Your task to perform on an android device: What's on my calendar tomorrow? Image 0: 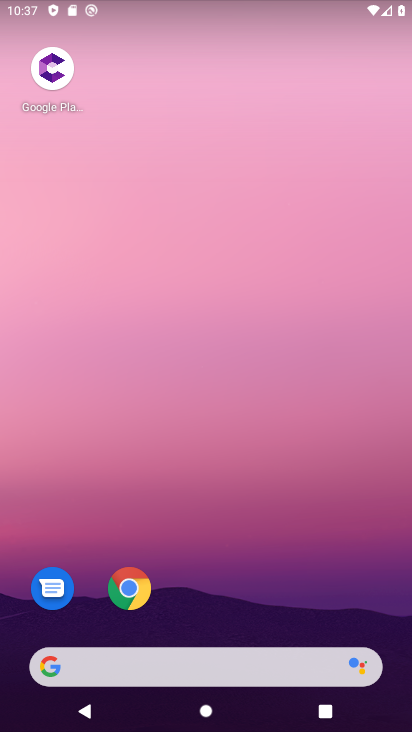
Step 0: drag from (385, 614) to (354, 8)
Your task to perform on an android device: What's on my calendar tomorrow? Image 1: 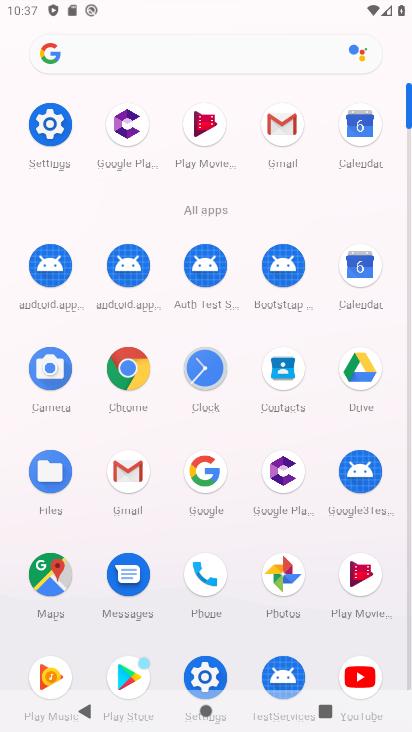
Step 1: click (362, 268)
Your task to perform on an android device: What's on my calendar tomorrow? Image 2: 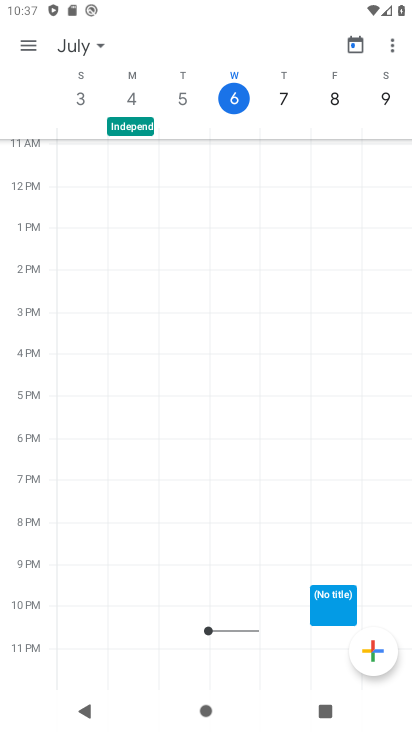
Step 2: click (28, 45)
Your task to perform on an android device: What's on my calendar tomorrow? Image 3: 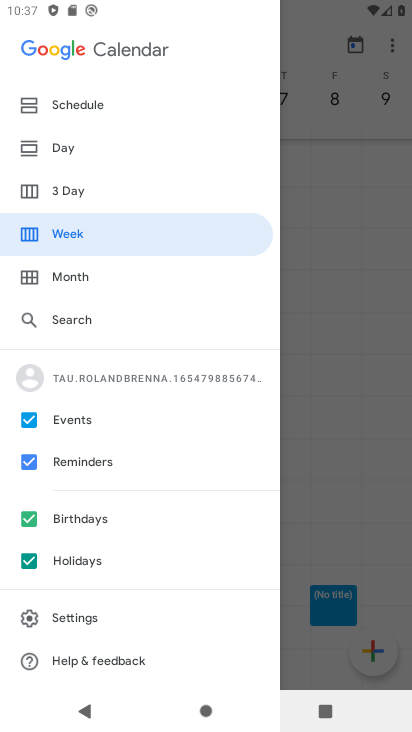
Step 3: click (61, 149)
Your task to perform on an android device: What's on my calendar tomorrow? Image 4: 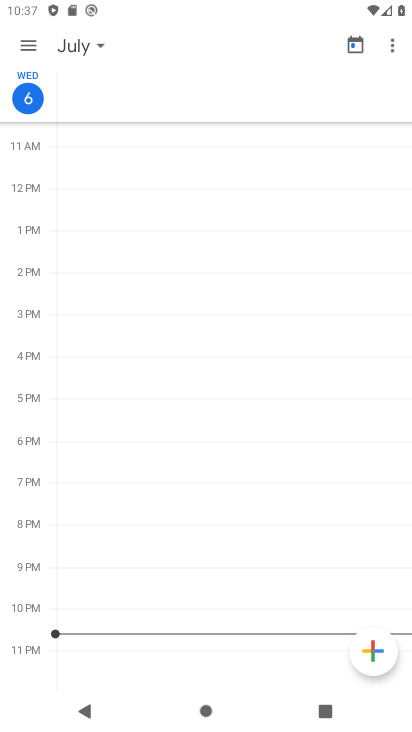
Step 4: click (102, 47)
Your task to perform on an android device: What's on my calendar tomorrow? Image 5: 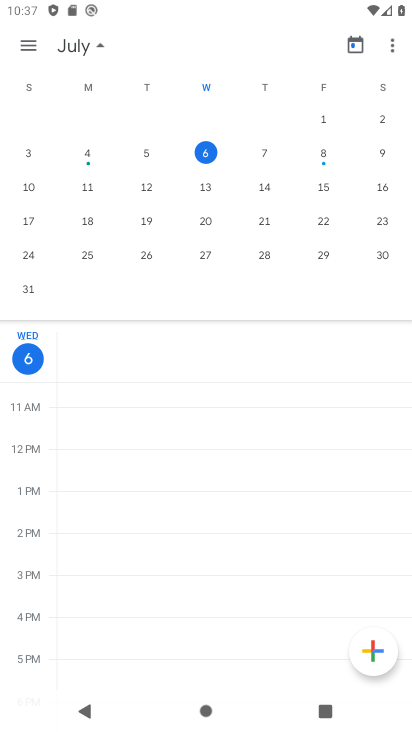
Step 5: click (265, 155)
Your task to perform on an android device: What's on my calendar tomorrow? Image 6: 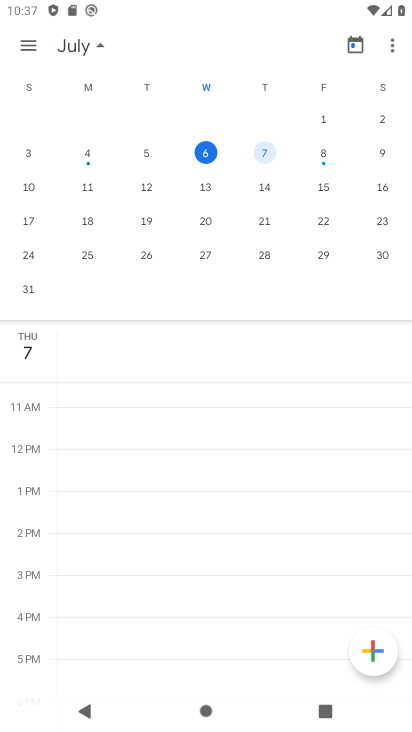
Step 6: task complete